Your task to perform on an android device: Go to CNN.com Image 0: 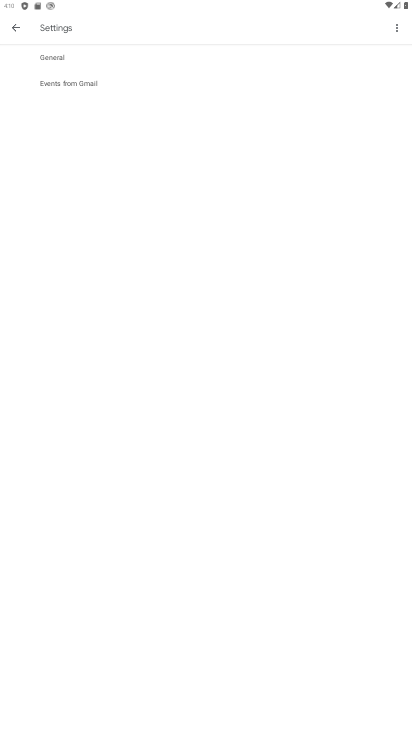
Step 0: press home button
Your task to perform on an android device: Go to CNN.com Image 1: 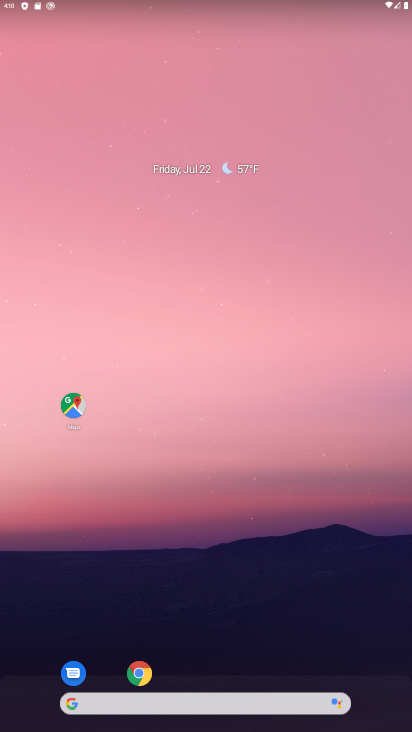
Step 1: drag from (294, 620) to (226, 160)
Your task to perform on an android device: Go to CNN.com Image 2: 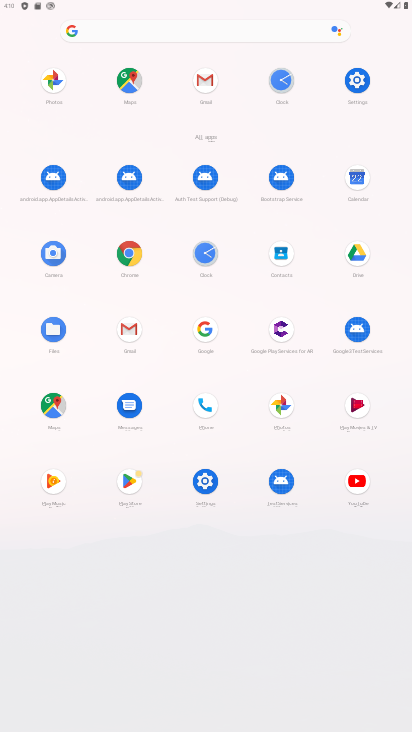
Step 2: click (125, 262)
Your task to perform on an android device: Go to CNN.com Image 3: 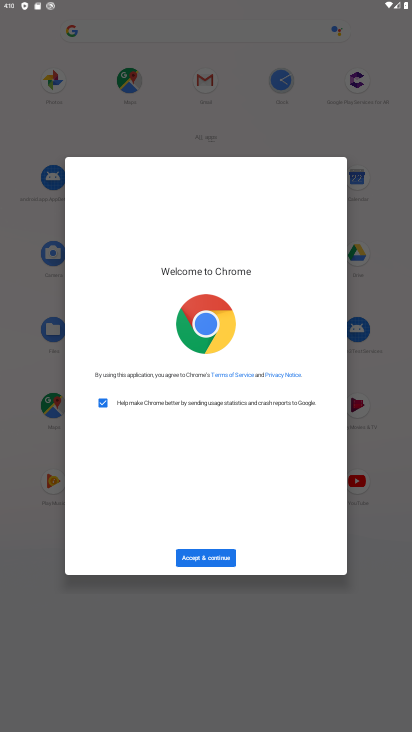
Step 3: click (198, 558)
Your task to perform on an android device: Go to CNN.com Image 4: 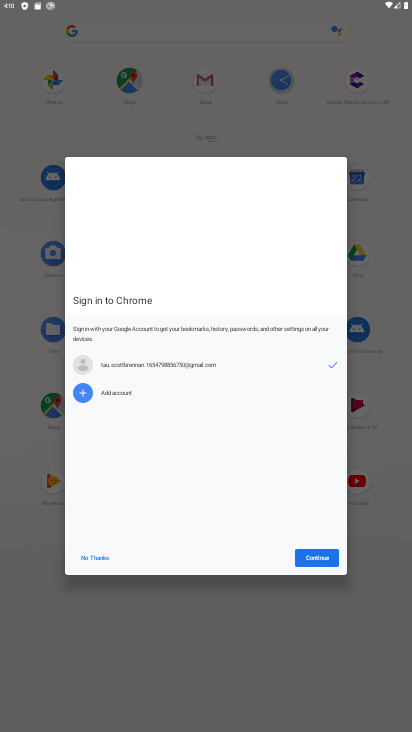
Step 4: click (310, 561)
Your task to perform on an android device: Go to CNN.com Image 5: 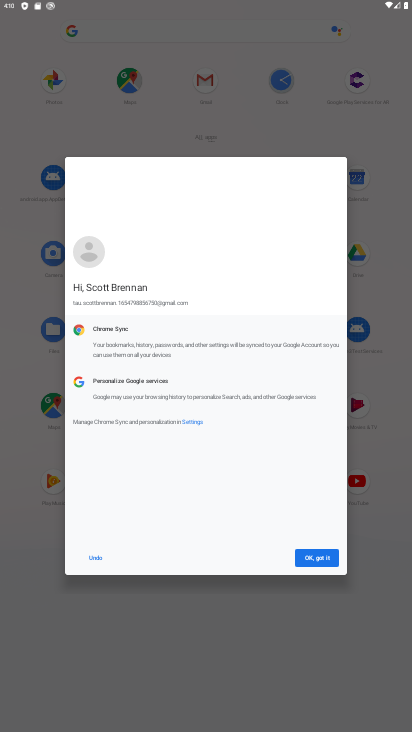
Step 5: click (311, 563)
Your task to perform on an android device: Go to CNN.com Image 6: 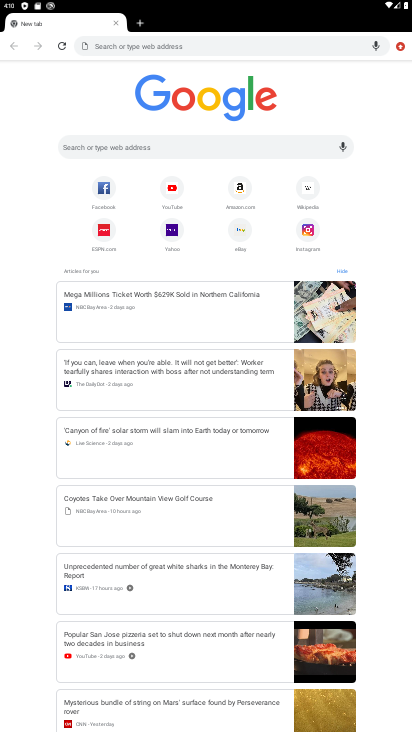
Step 6: click (172, 149)
Your task to perform on an android device: Go to CNN.com Image 7: 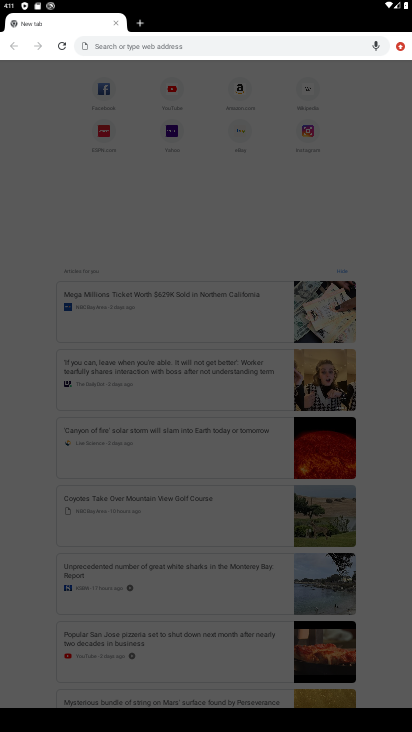
Step 7: type "cnn.com"
Your task to perform on an android device: Go to CNN.com Image 8: 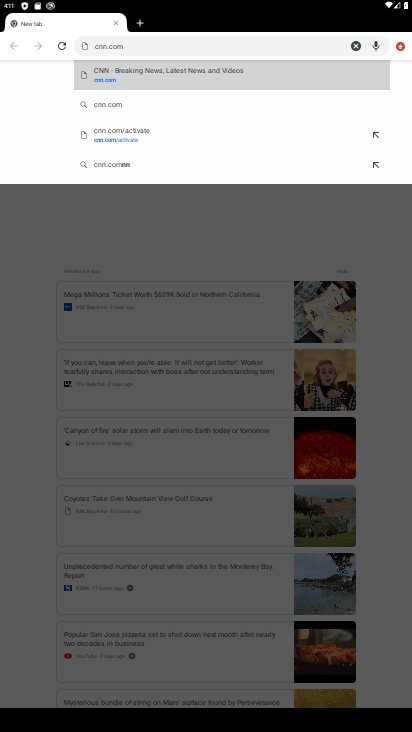
Step 8: click (130, 76)
Your task to perform on an android device: Go to CNN.com Image 9: 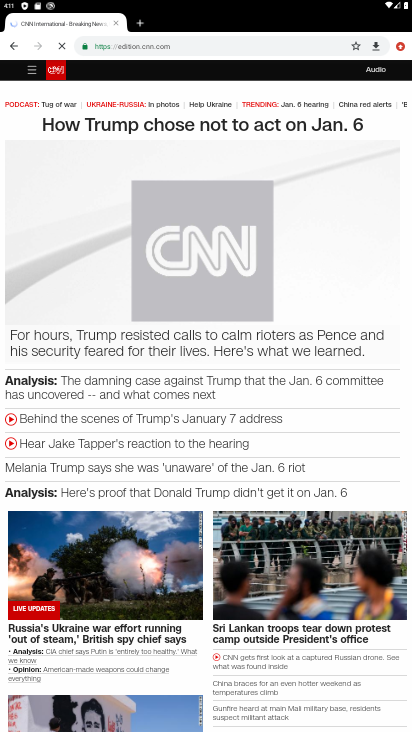
Step 9: task complete